Your task to perform on an android device: Search for pizza restaurants on Maps Image 0: 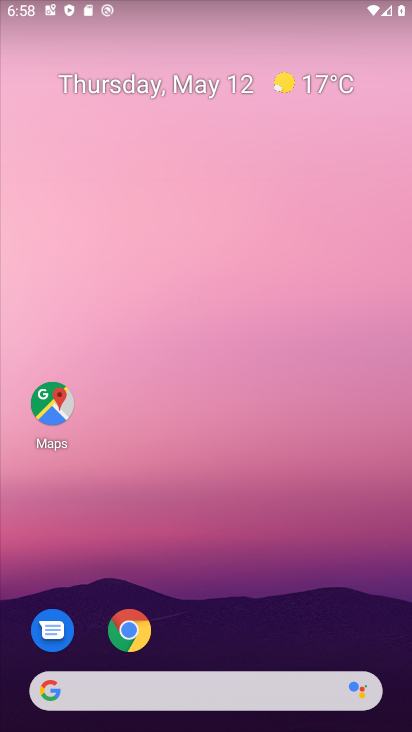
Step 0: drag from (366, 633) to (195, 149)
Your task to perform on an android device: Search for pizza restaurants on Maps Image 1: 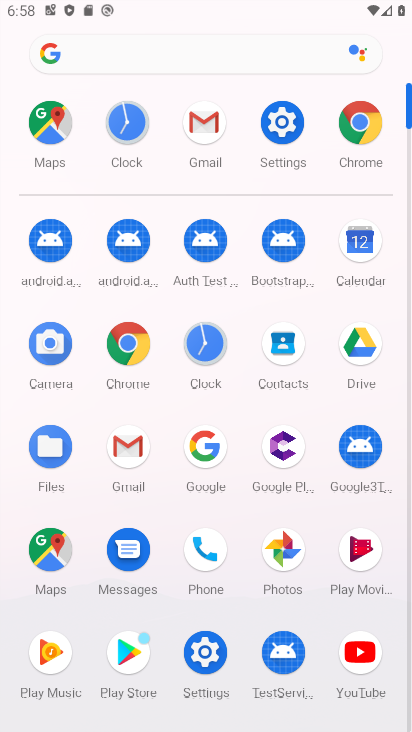
Step 1: click (47, 538)
Your task to perform on an android device: Search for pizza restaurants on Maps Image 2: 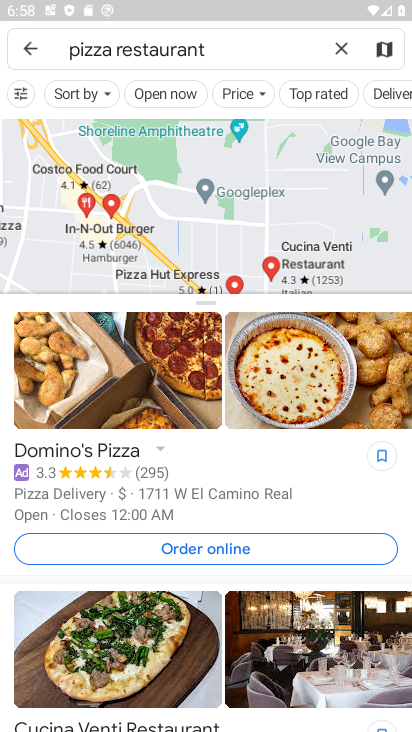
Step 2: task complete